Your task to perform on an android device: When is my next appointment? Image 0: 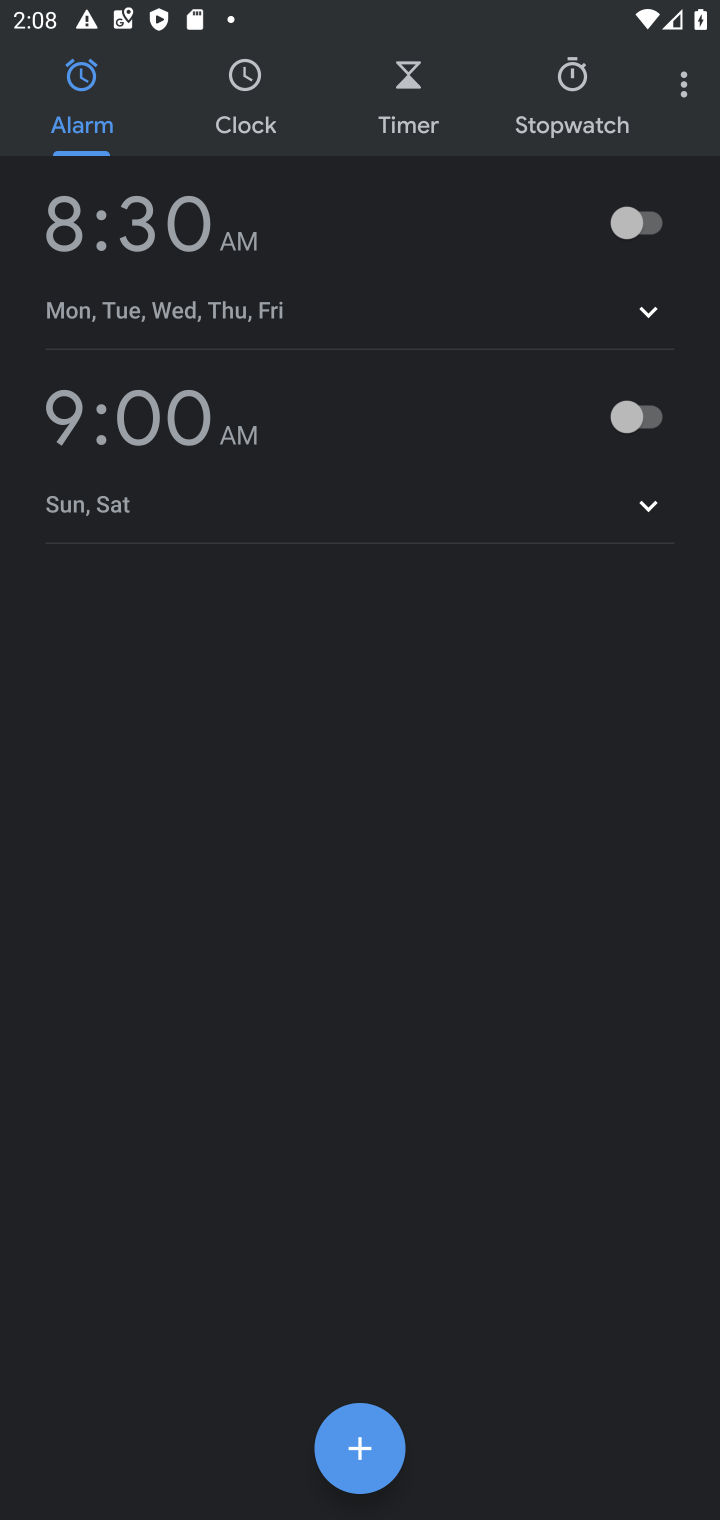
Step 0: press home button
Your task to perform on an android device: When is my next appointment? Image 1: 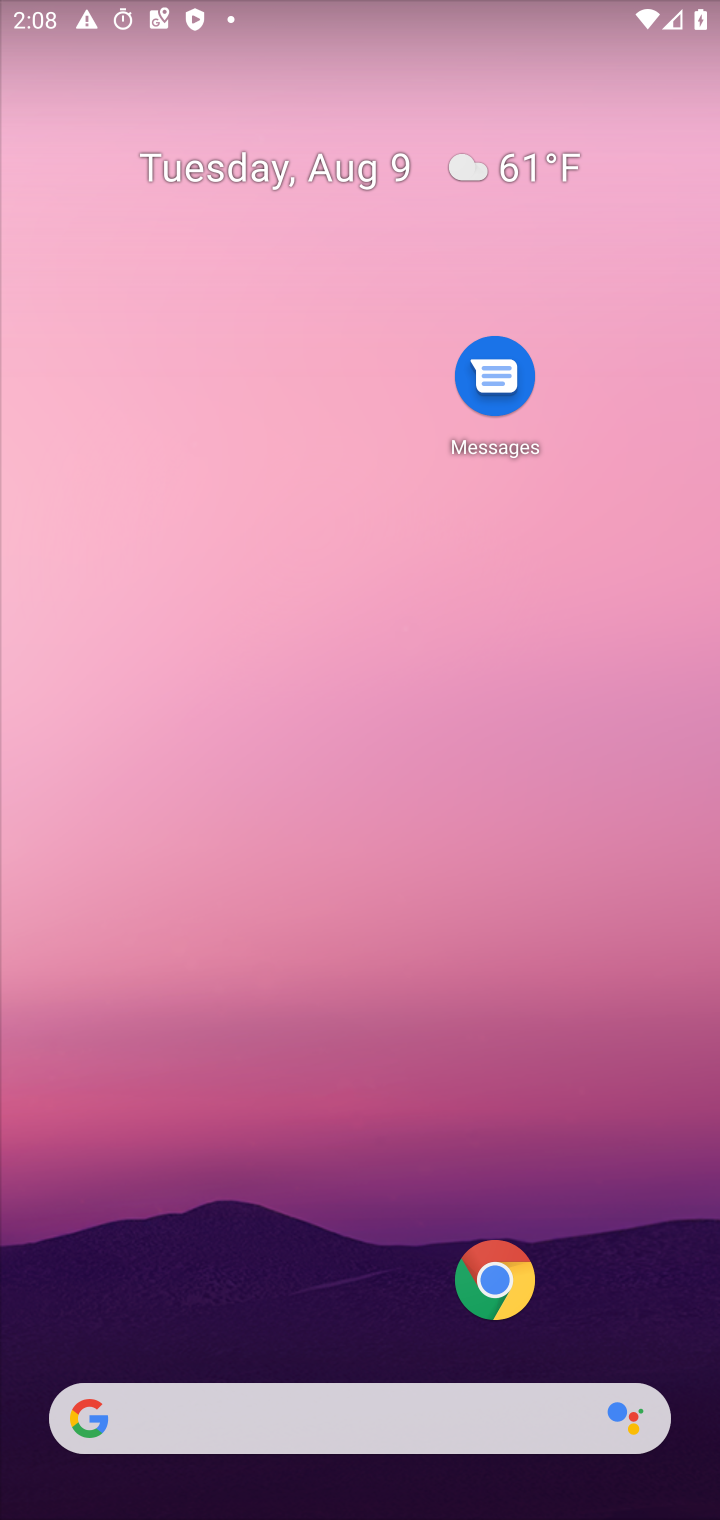
Step 1: drag from (303, 1419) to (530, 525)
Your task to perform on an android device: When is my next appointment? Image 2: 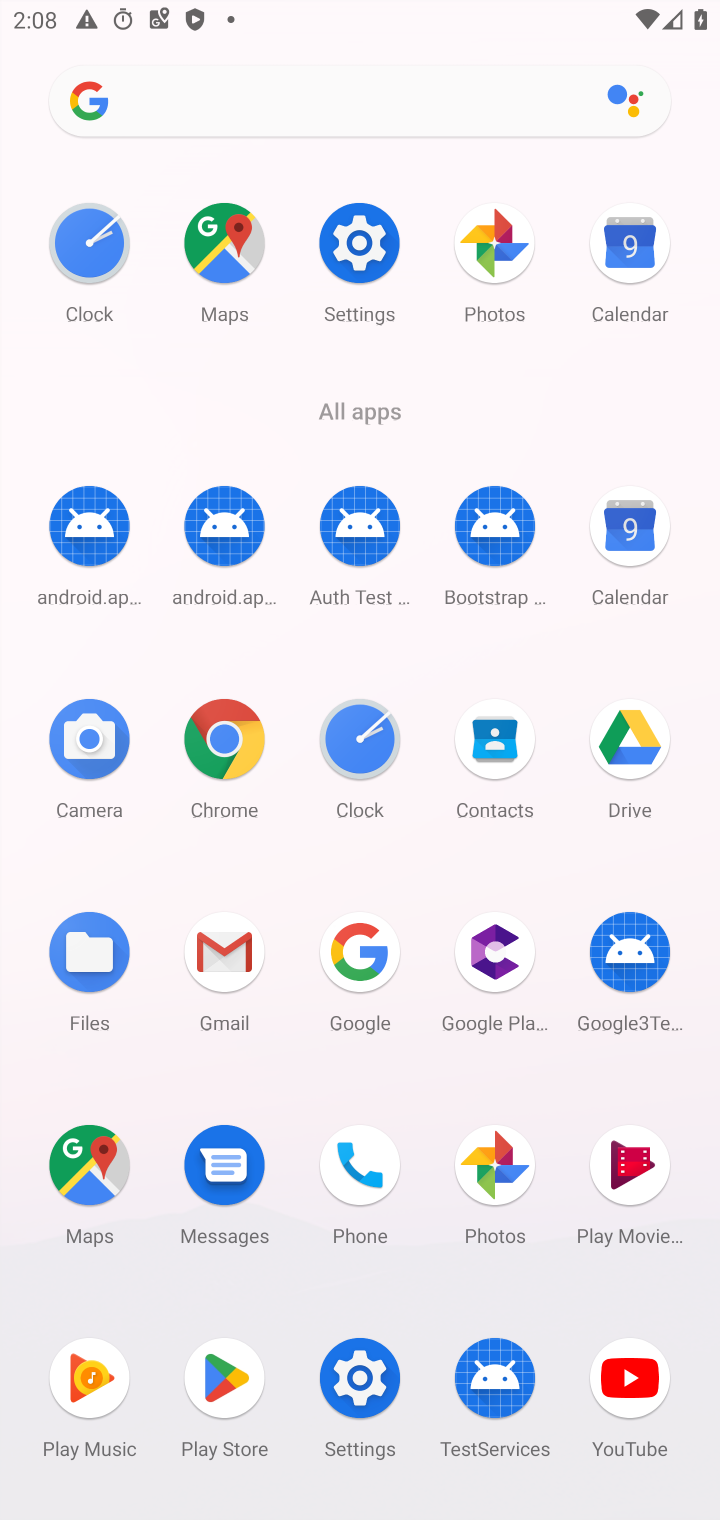
Step 2: click (626, 528)
Your task to perform on an android device: When is my next appointment? Image 3: 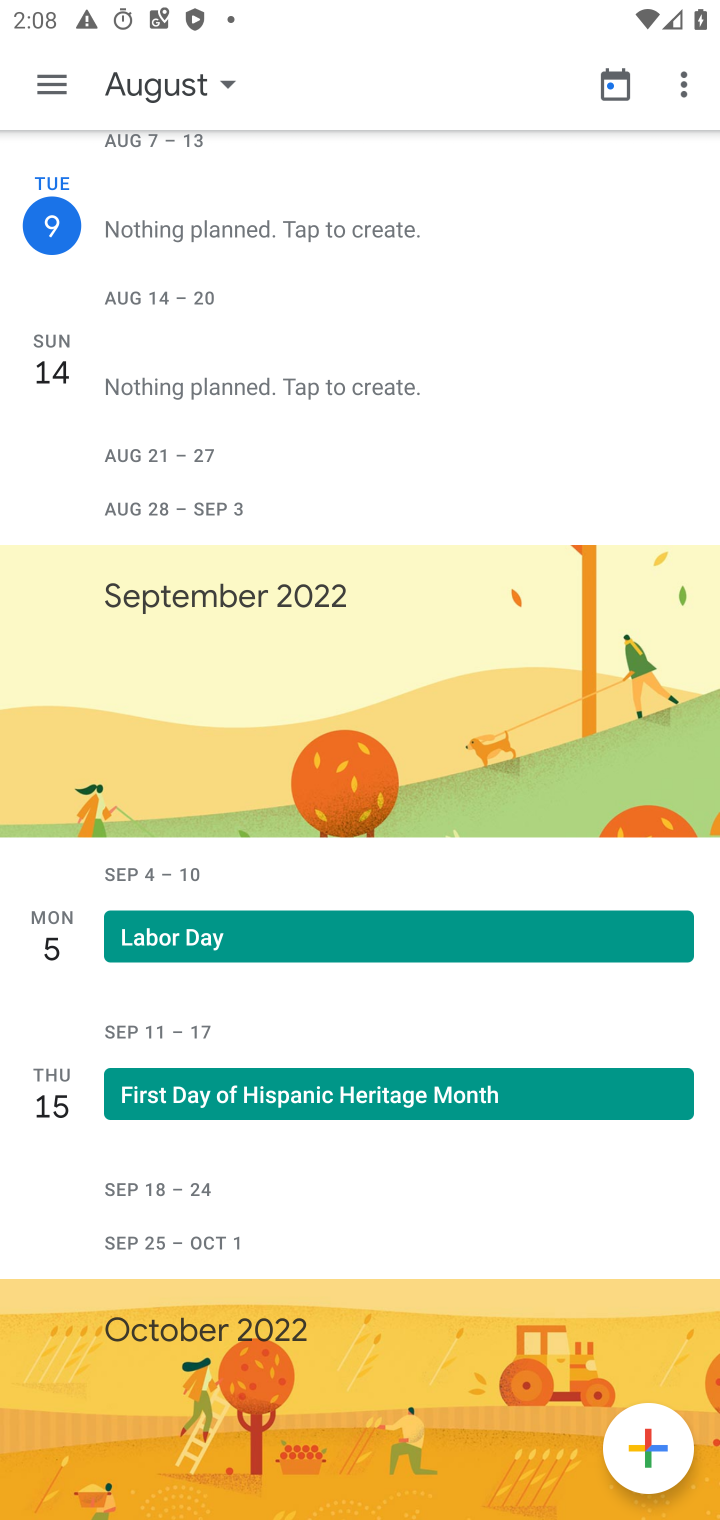
Step 3: task complete